Your task to perform on an android device: What's the weather going to be this weekend? Image 0: 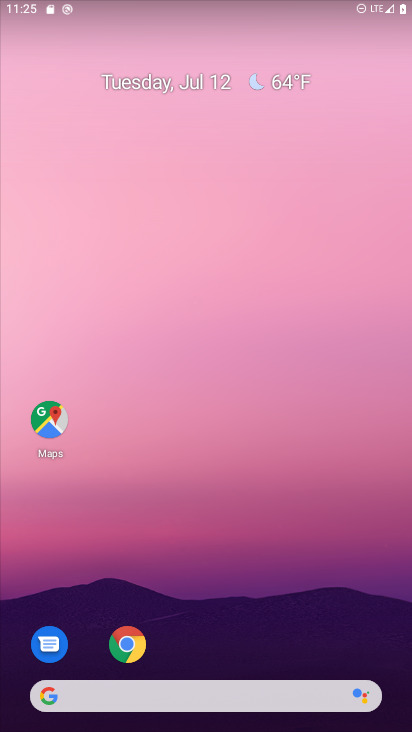
Step 0: drag from (254, 621) to (257, 127)
Your task to perform on an android device: What's the weather going to be this weekend? Image 1: 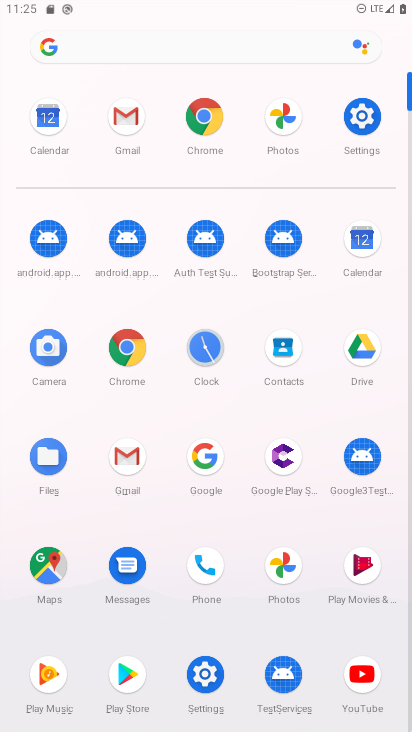
Step 1: click (24, 125)
Your task to perform on an android device: What's the weather going to be this weekend? Image 2: 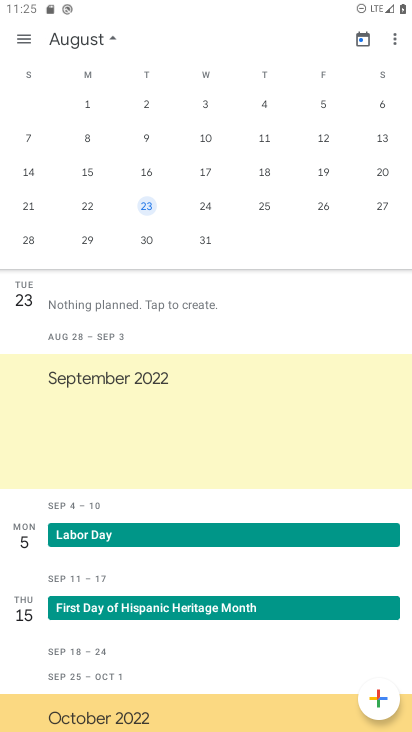
Step 2: task complete